Your task to perform on an android device: check storage Image 0: 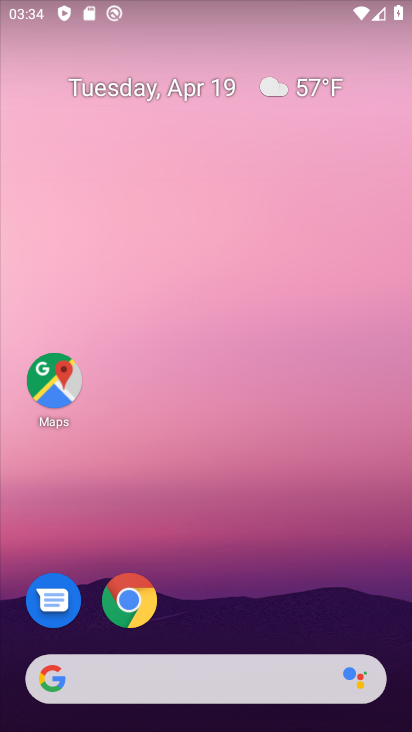
Step 0: drag from (376, 586) to (241, 145)
Your task to perform on an android device: check storage Image 1: 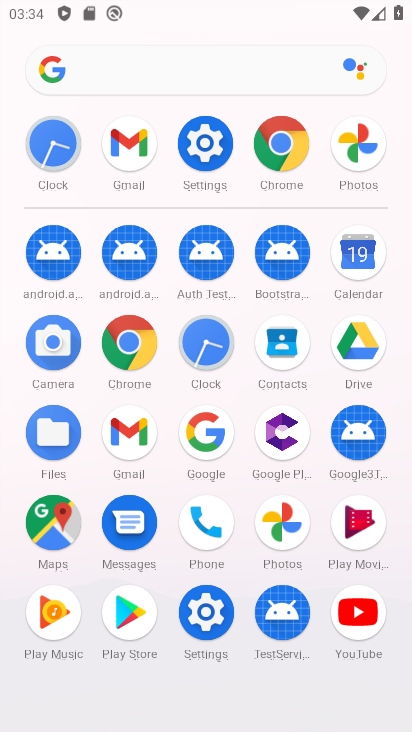
Step 1: click (215, 138)
Your task to perform on an android device: check storage Image 2: 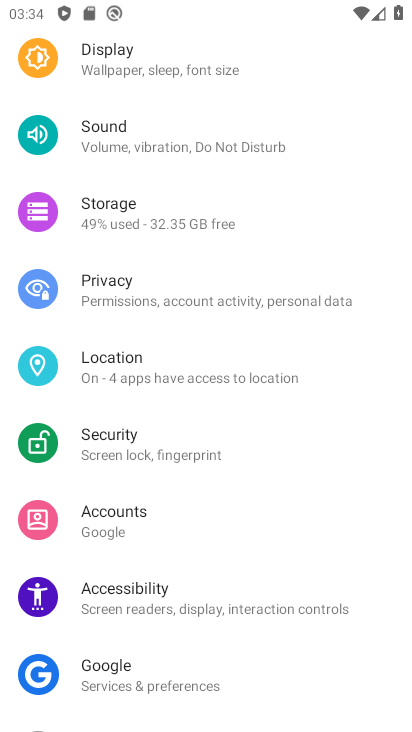
Step 2: click (252, 214)
Your task to perform on an android device: check storage Image 3: 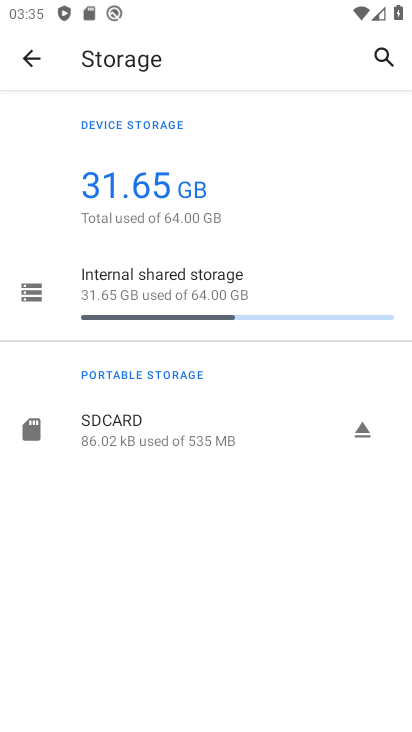
Step 3: task complete